Your task to perform on an android device: Open eBay Image 0: 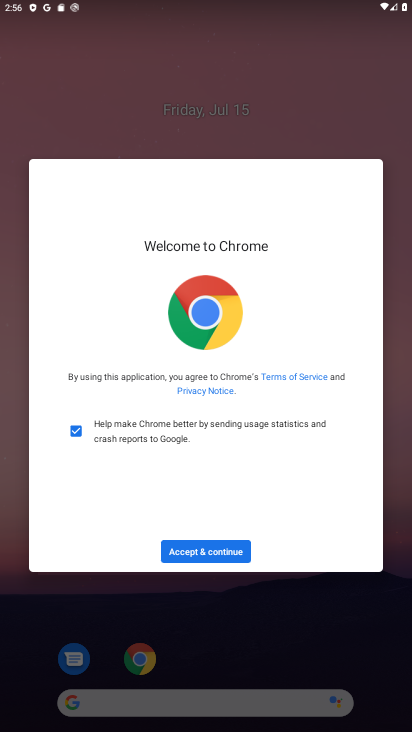
Step 0: press home button
Your task to perform on an android device: Open eBay Image 1: 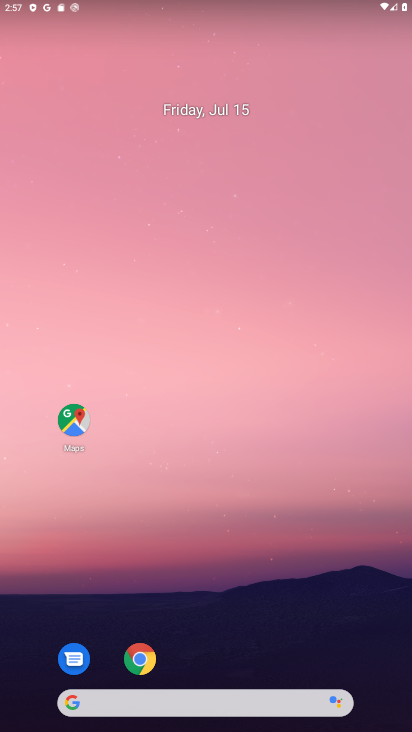
Step 1: click (142, 658)
Your task to perform on an android device: Open eBay Image 2: 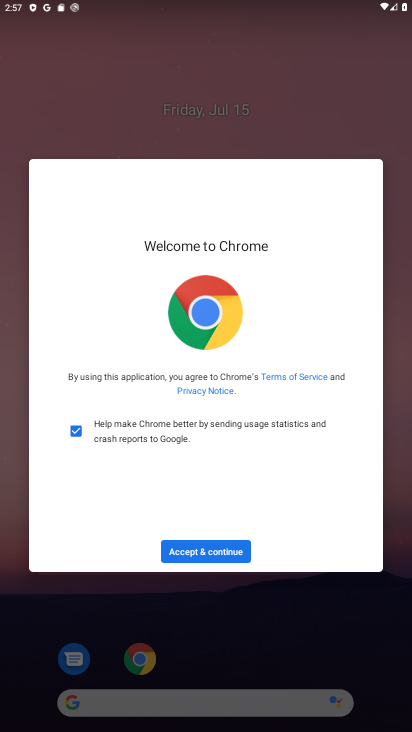
Step 2: click (200, 558)
Your task to perform on an android device: Open eBay Image 3: 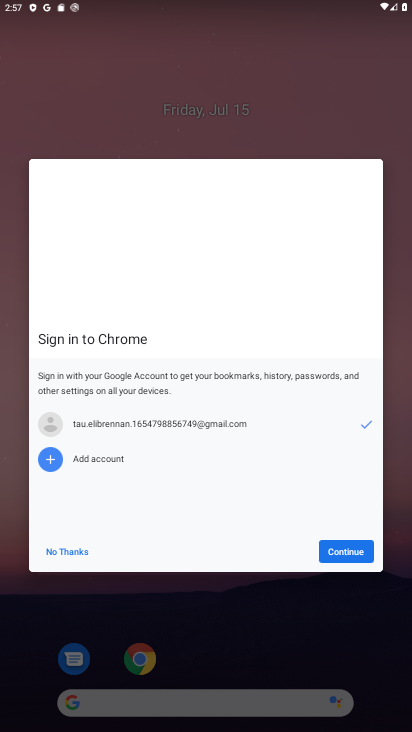
Step 3: click (345, 547)
Your task to perform on an android device: Open eBay Image 4: 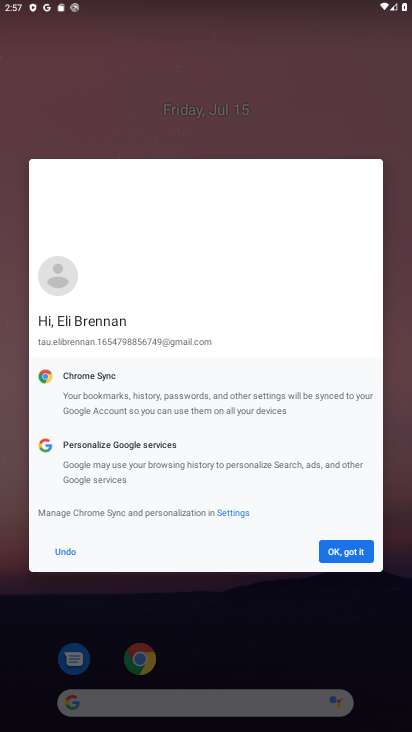
Step 4: click (345, 547)
Your task to perform on an android device: Open eBay Image 5: 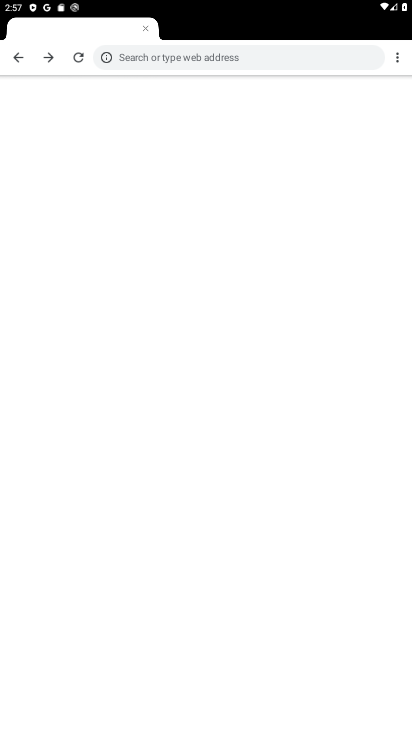
Step 5: click (345, 547)
Your task to perform on an android device: Open eBay Image 6: 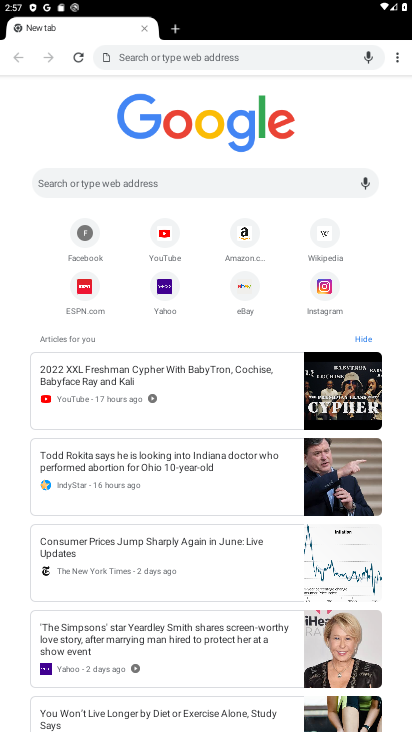
Step 6: click (243, 289)
Your task to perform on an android device: Open eBay Image 7: 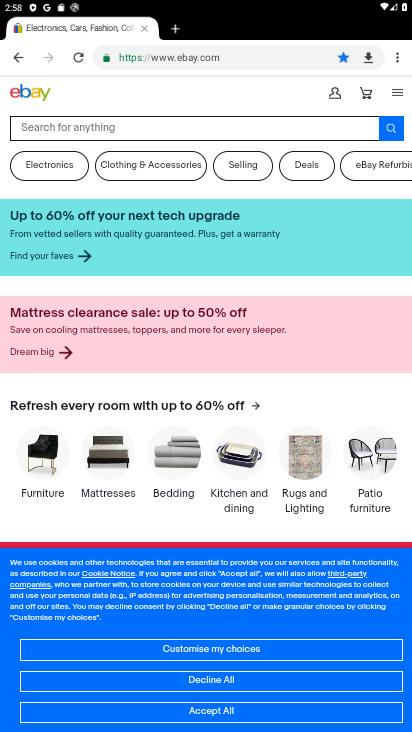
Step 7: task complete